Your task to perform on an android device: turn off notifications settings in the gmail app Image 0: 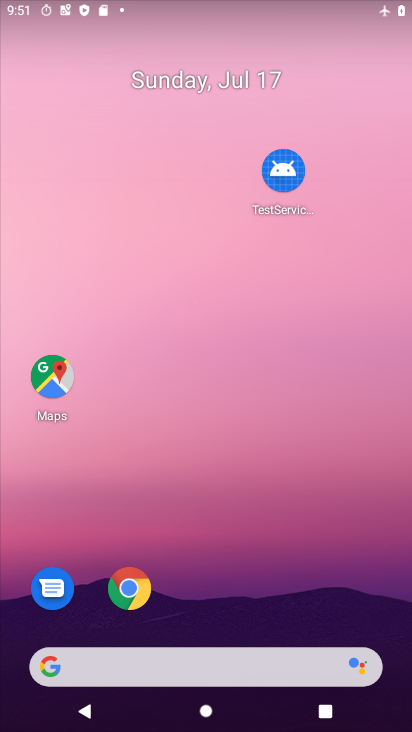
Step 0: drag from (198, 623) to (264, 211)
Your task to perform on an android device: turn off notifications settings in the gmail app Image 1: 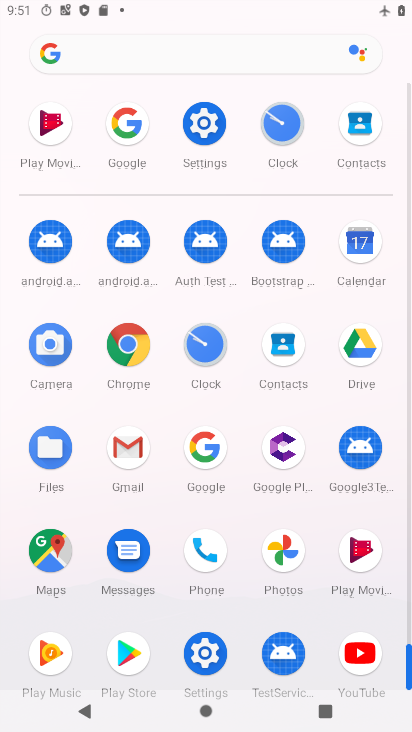
Step 1: click (137, 476)
Your task to perform on an android device: turn off notifications settings in the gmail app Image 2: 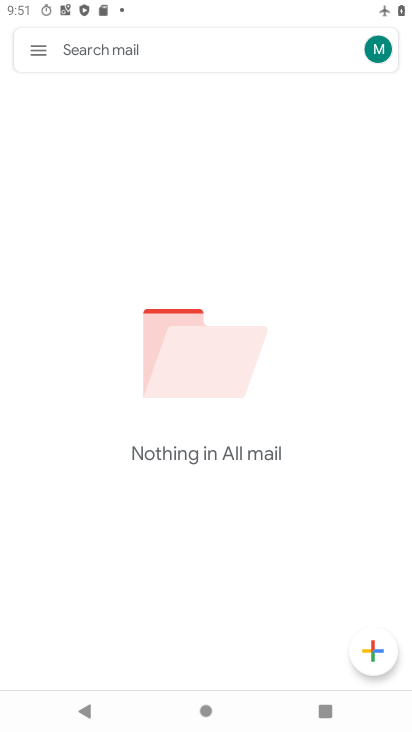
Step 2: click (37, 56)
Your task to perform on an android device: turn off notifications settings in the gmail app Image 3: 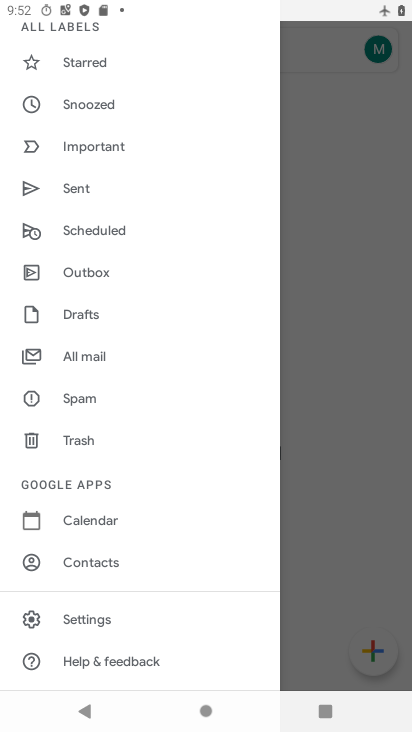
Step 3: click (85, 620)
Your task to perform on an android device: turn off notifications settings in the gmail app Image 4: 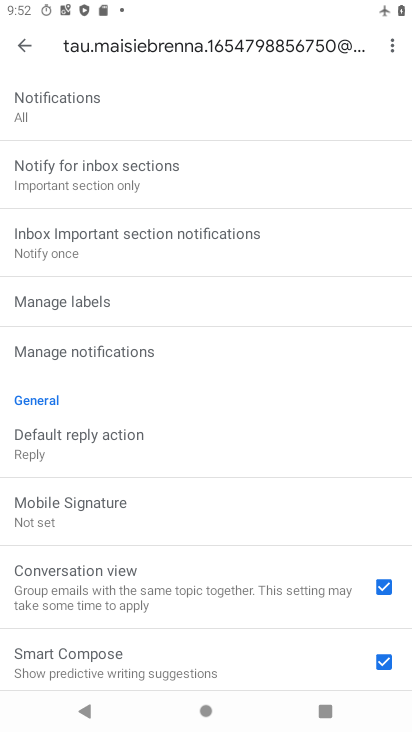
Step 4: drag from (84, 604) to (173, 254)
Your task to perform on an android device: turn off notifications settings in the gmail app Image 5: 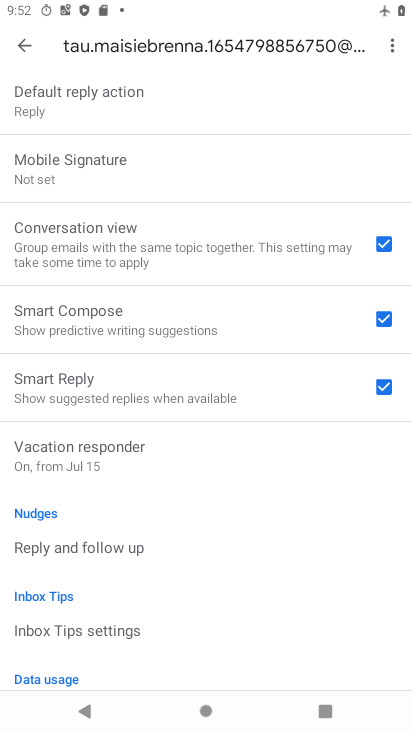
Step 5: drag from (98, 229) to (80, 624)
Your task to perform on an android device: turn off notifications settings in the gmail app Image 6: 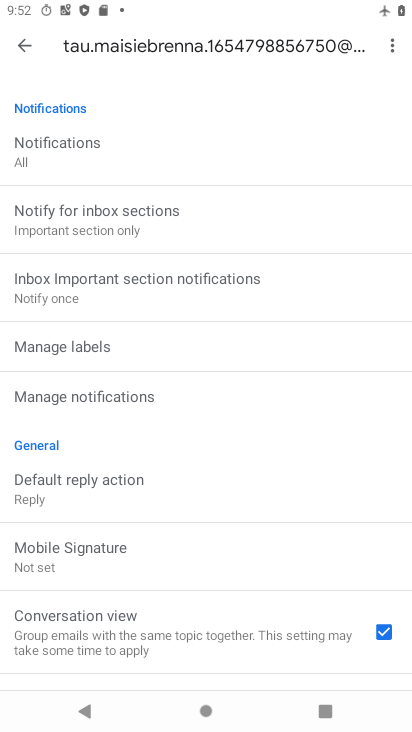
Step 6: click (78, 149)
Your task to perform on an android device: turn off notifications settings in the gmail app Image 7: 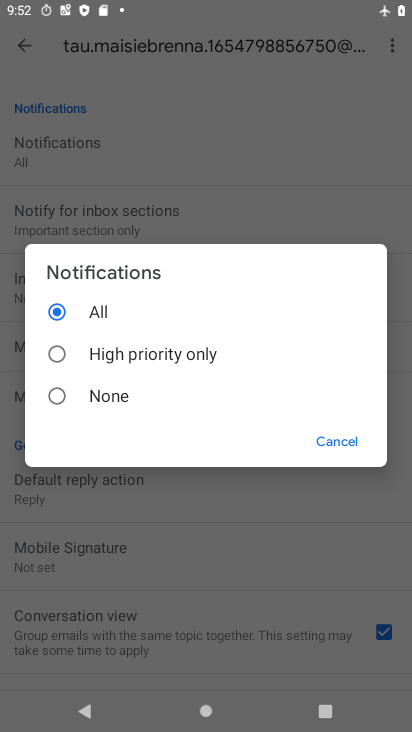
Step 7: task complete